Your task to perform on an android device: turn on showing notifications on the lock screen Image 0: 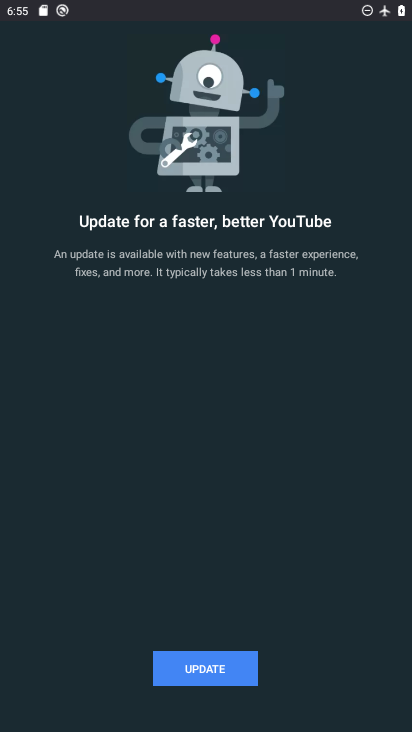
Step 0: press home button
Your task to perform on an android device: turn on showing notifications on the lock screen Image 1: 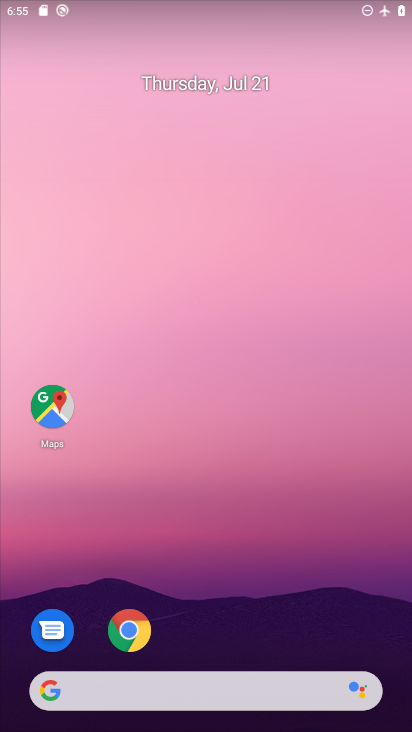
Step 1: drag from (207, 680) to (211, 110)
Your task to perform on an android device: turn on showing notifications on the lock screen Image 2: 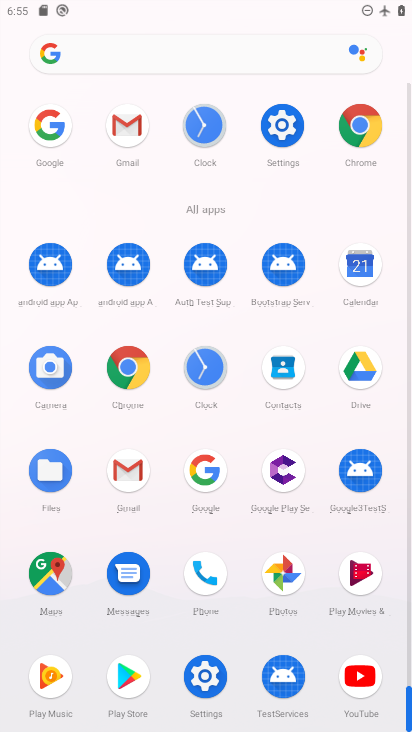
Step 2: click (283, 124)
Your task to perform on an android device: turn on showing notifications on the lock screen Image 3: 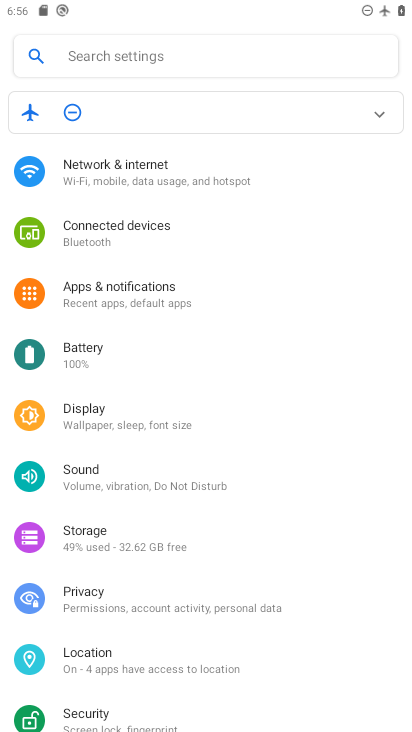
Step 3: click (117, 295)
Your task to perform on an android device: turn on showing notifications on the lock screen Image 4: 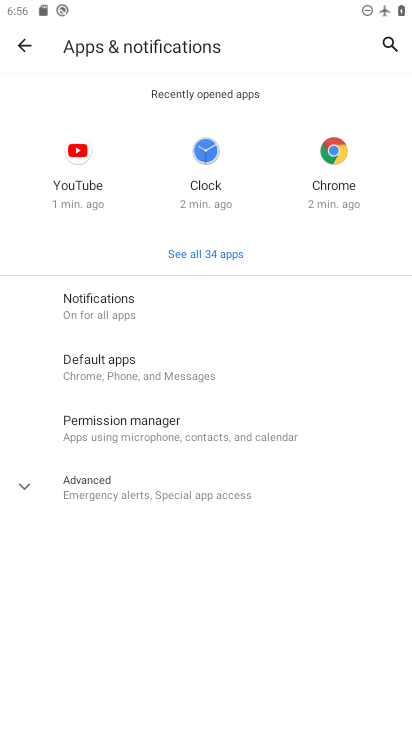
Step 4: click (102, 311)
Your task to perform on an android device: turn on showing notifications on the lock screen Image 5: 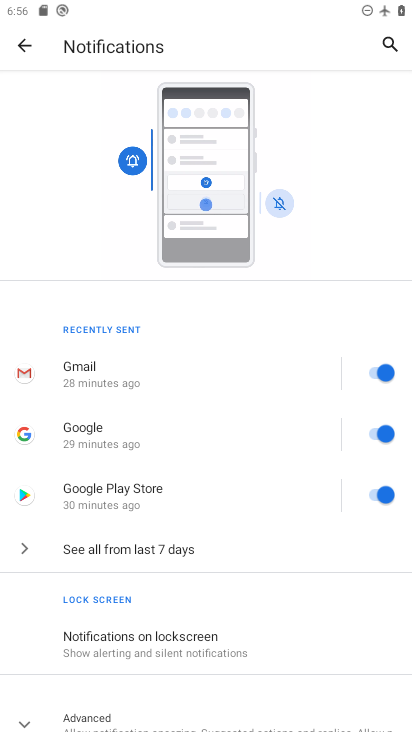
Step 5: click (110, 644)
Your task to perform on an android device: turn on showing notifications on the lock screen Image 6: 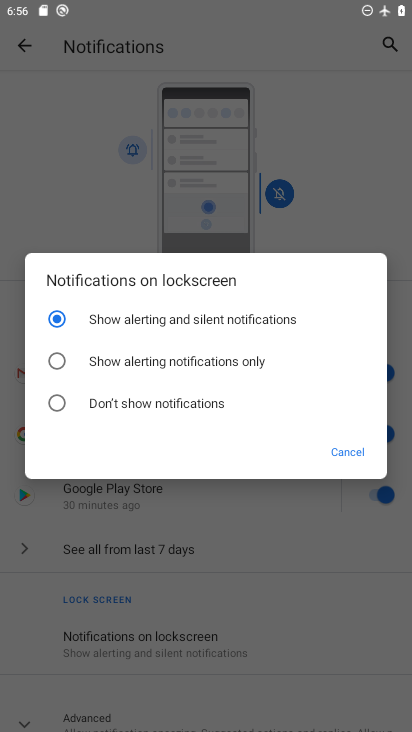
Step 6: click (54, 321)
Your task to perform on an android device: turn on showing notifications on the lock screen Image 7: 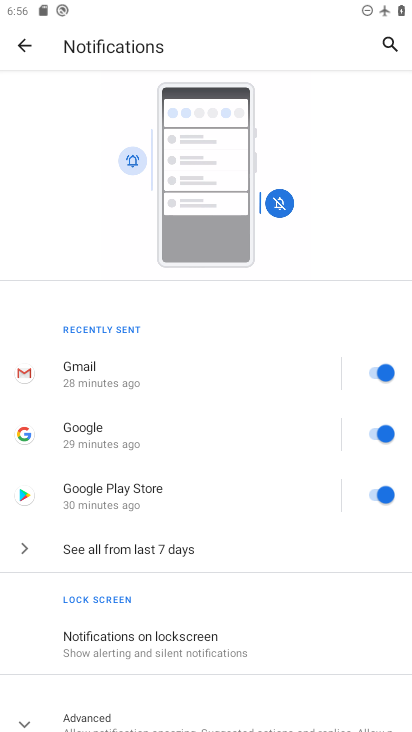
Step 7: task complete